Your task to perform on an android device: Open Chrome and go to the settings page Image 0: 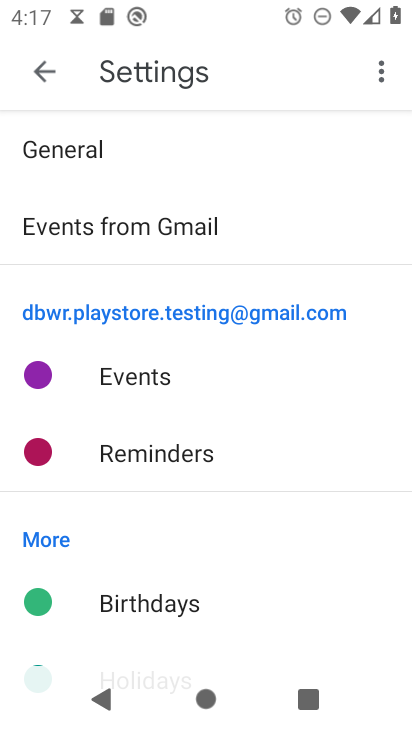
Step 0: press home button
Your task to perform on an android device: Open Chrome and go to the settings page Image 1: 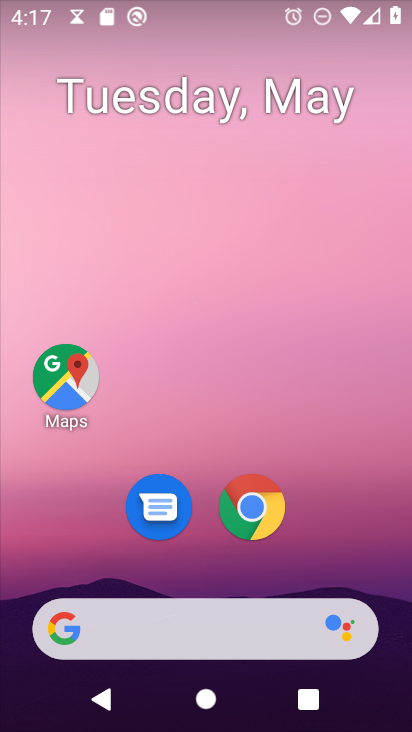
Step 1: click (256, 517)
Your task to perform on an android device: Open Chrome and go to the settings page Image 2: 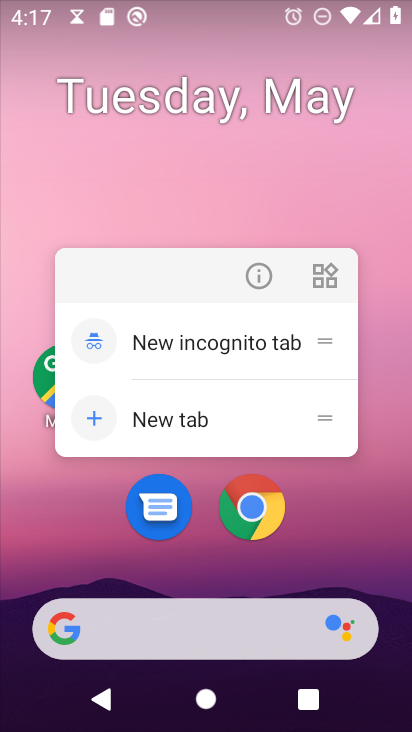
Step 2: click (258, 519)
Your task to perform on an android device: Open Chrome and go to the settings page Image 3: 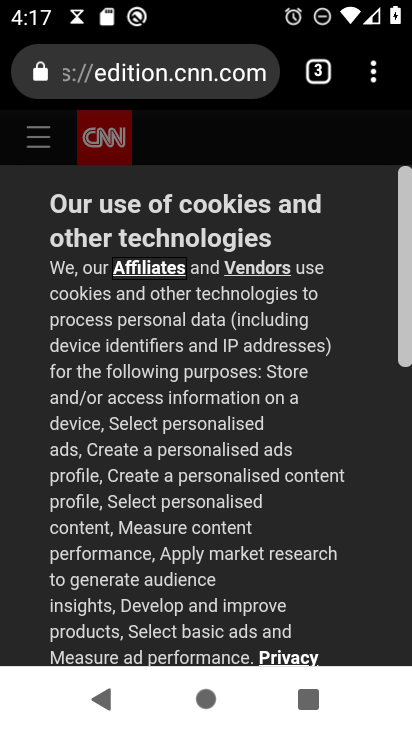
Step 3: click (370, 76)
Your task to perform on an android device: Open Chrome and go to the settings page Image 4: 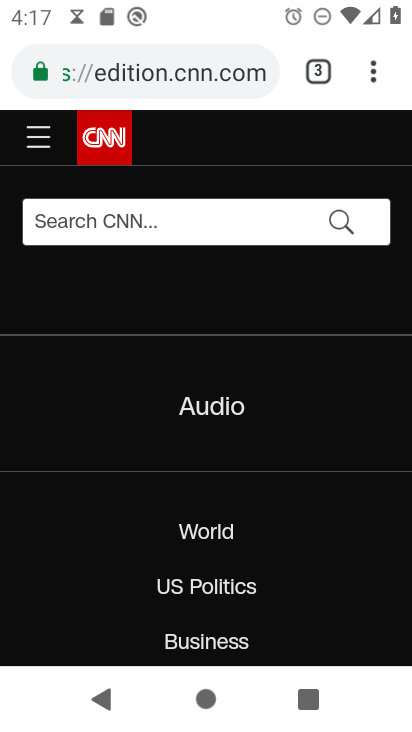
Step 4: click (370, 76)
Your task to perform on an android device: Open Chrome and go to the settings page Image 5: 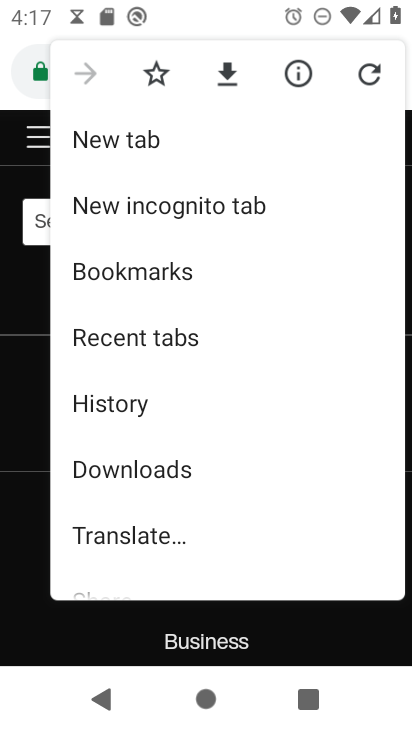
Step 5: drag from (225, 521) to (170, 217)
Your task to perform on an android device: Open Chrome and go to the settings page Image 6: 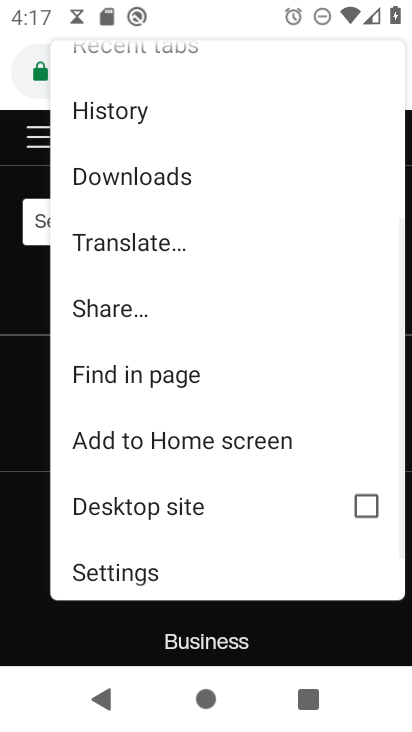
Step 6: drag from (154, 523) to (151, 314)
Your task to perform on an android device: Open Chrome and go to the settings page Image 7: 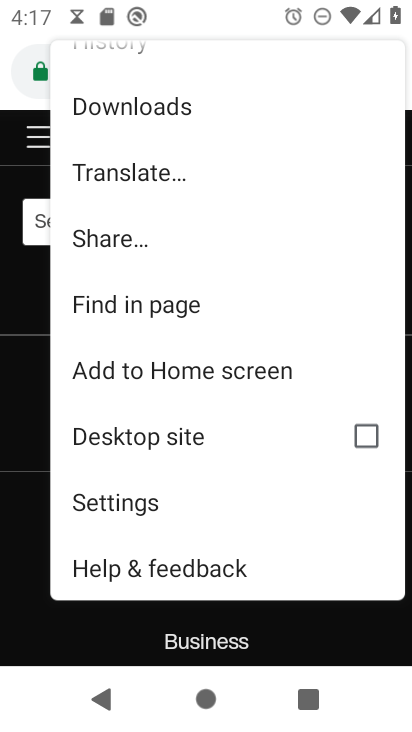
Step 7: click (146, 499)
Your task to perform on an android device: Open Chrome and go to the settings page Image 8: 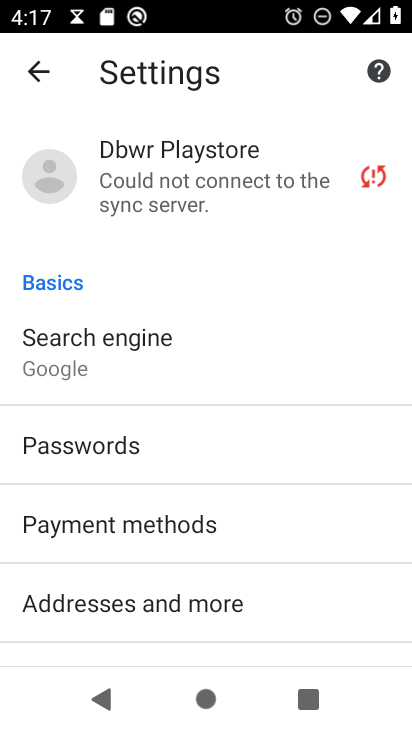
Step 8: task complete